Your task to perform on an android device: Show me the alarms in the clock app Image 0: 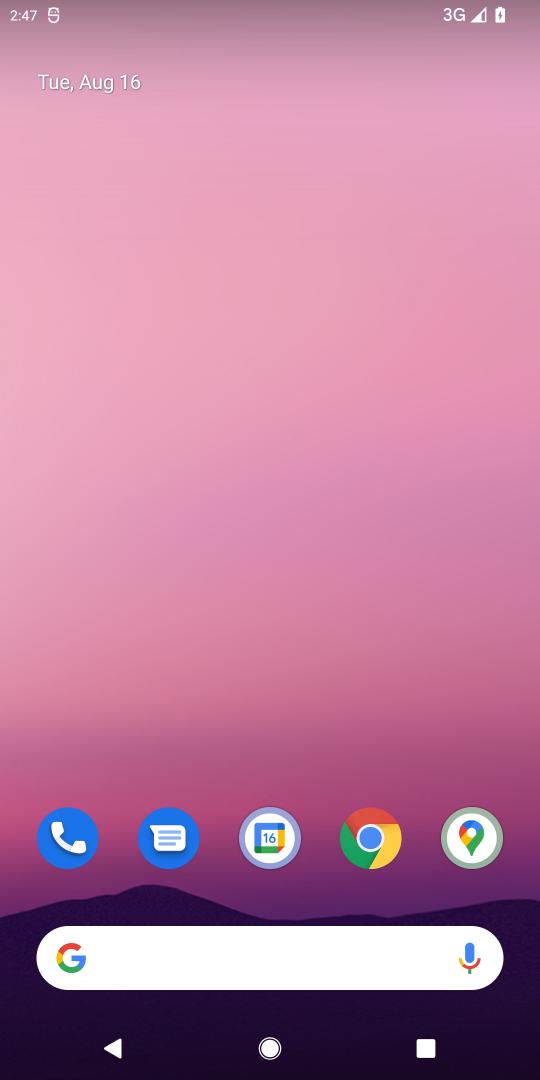
Step 0: press home button
Your task to perform on an android device: Show me the alarms in the clock app Image 1: 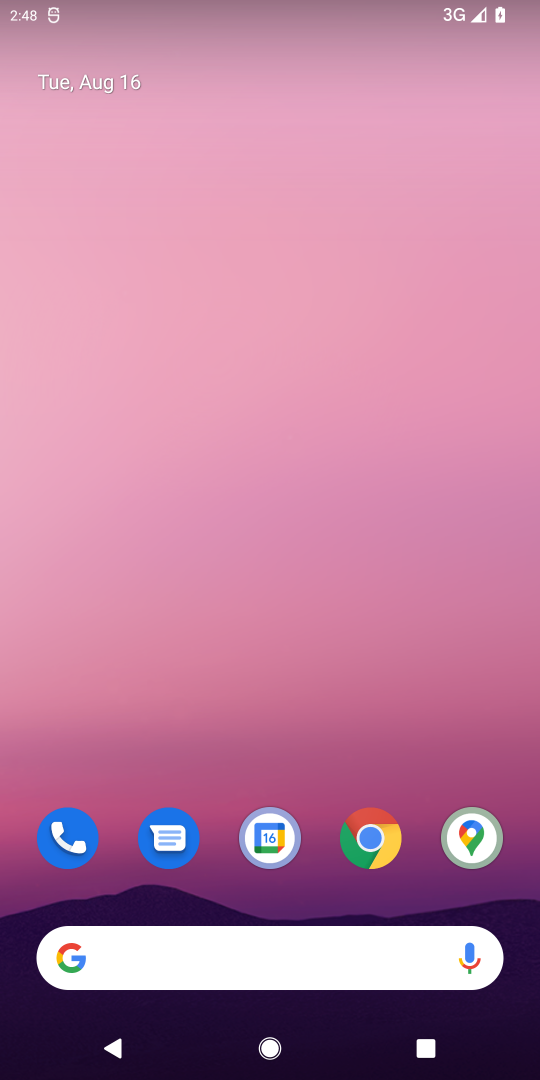
Step 1: drag from (291, 764) to (262, 124)
Your task to perform on an android device: Show me the alarms in the clock app Image 2: 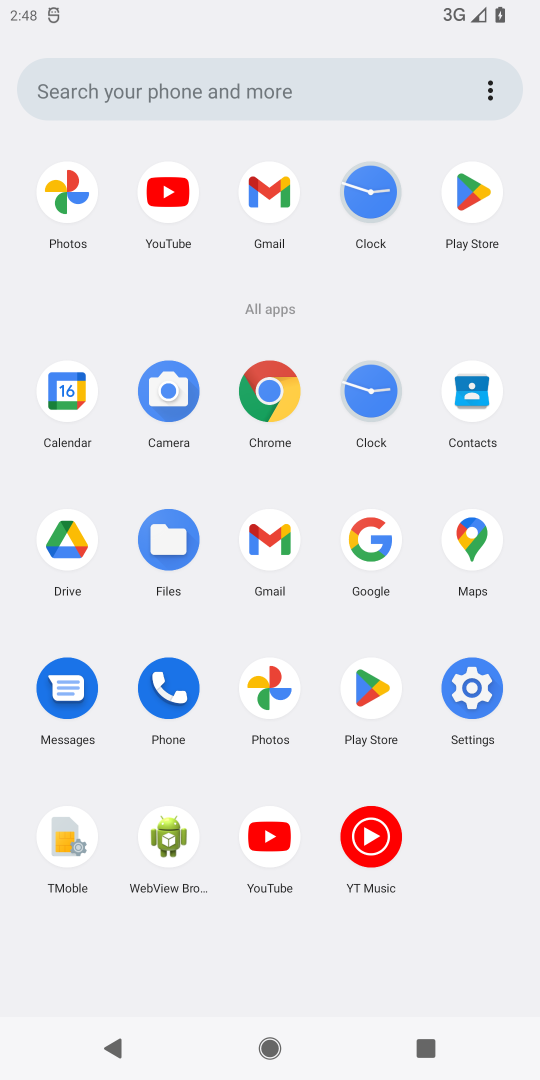
Step 2: click (382, 396)
Your task to perform on an android device: Show me the alarms in the clock app Image 3: 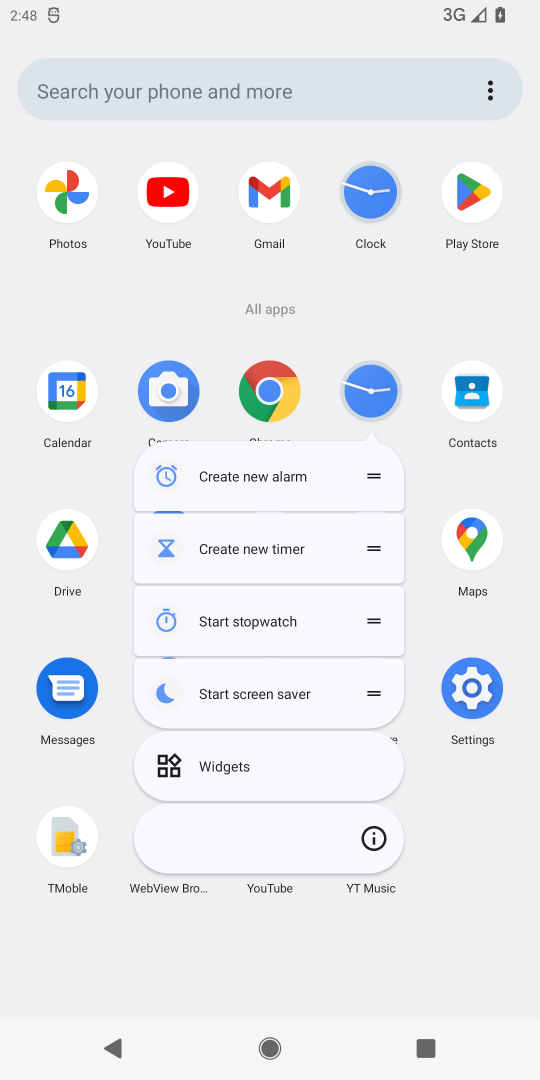
Step 3: click (379, 392)
Your task to perform on an android device: Show me the alarms in the clock app Image 4: 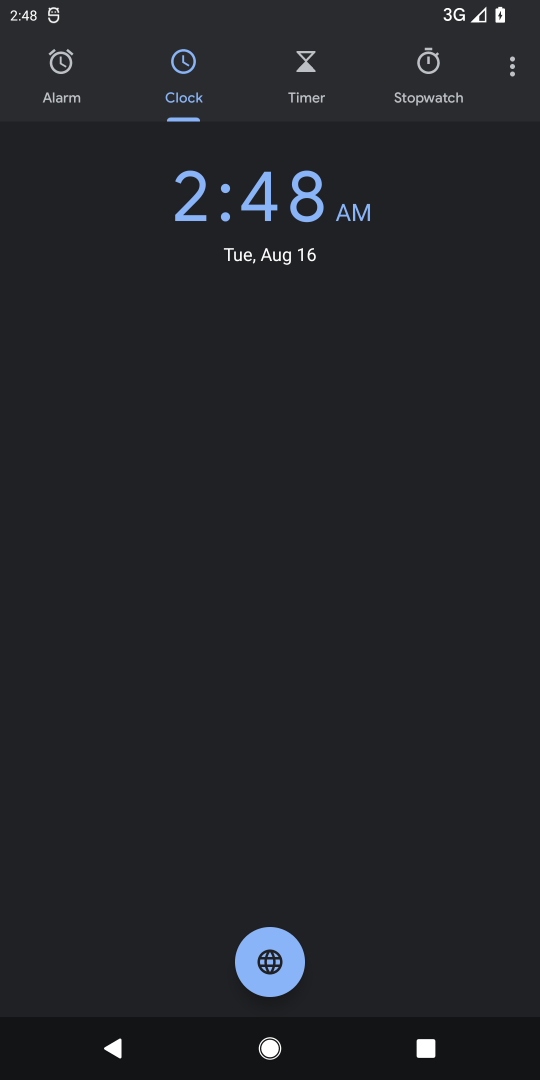
Step 4: click (65, 64)
Your task to perform on an android device: Show me the alarms in the clock app Image 5: 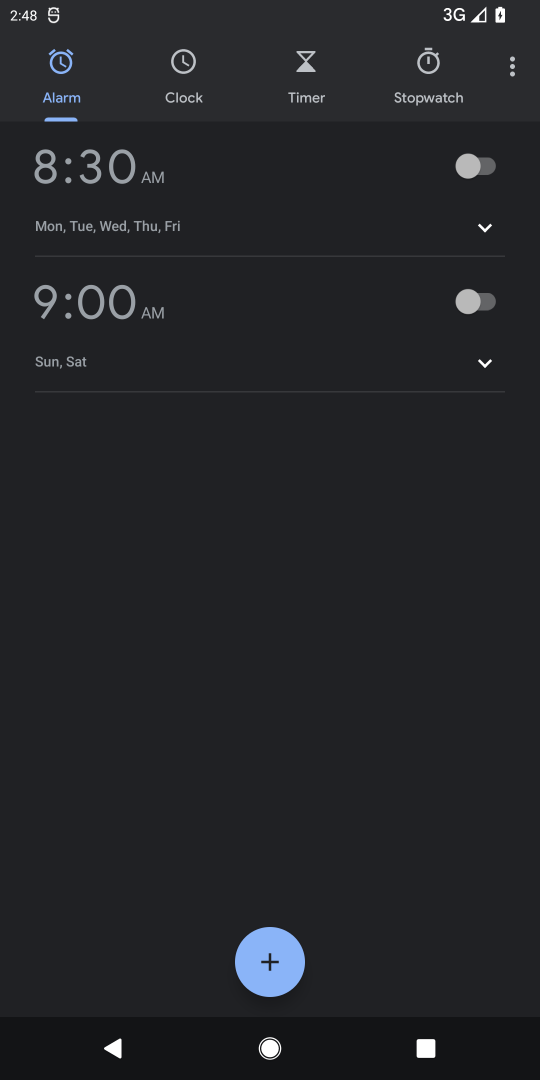
Step 5: task complete